Your task to perform on an android device: Open Amazon Image 0: 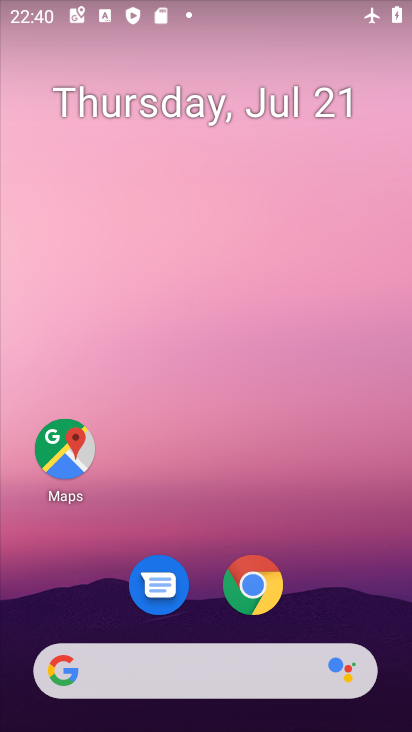
Step 0: click (258, 580)
Your task to perform on an android device: Open Amazon Image 1: 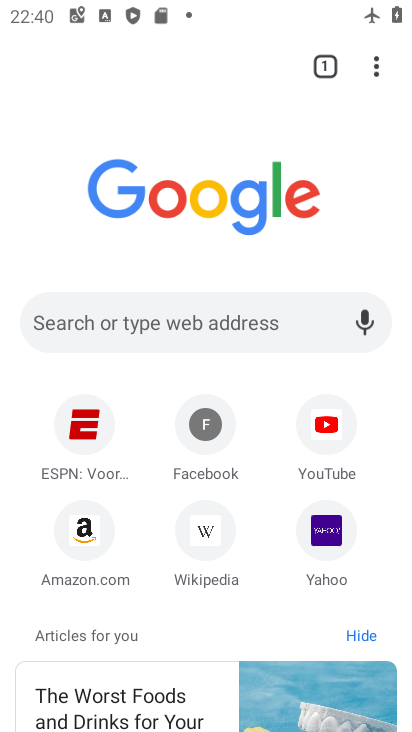
Step 1: click (83, 528)
Your task to perform on an android device: Open Amazon Image 2: 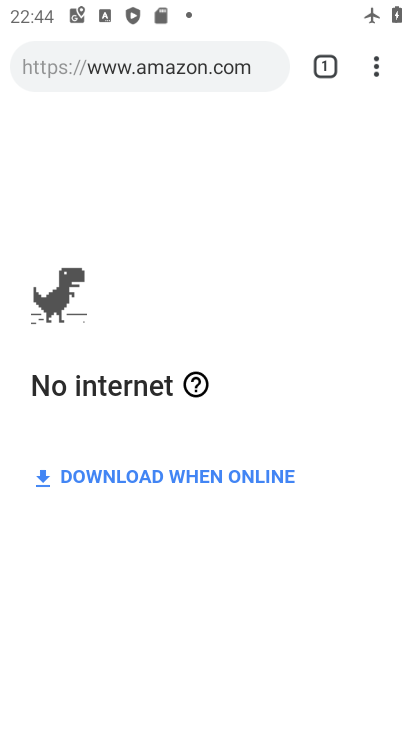
Step 2: task complete